Your task to perform on an android device: Go to Reddit.com Image 0: 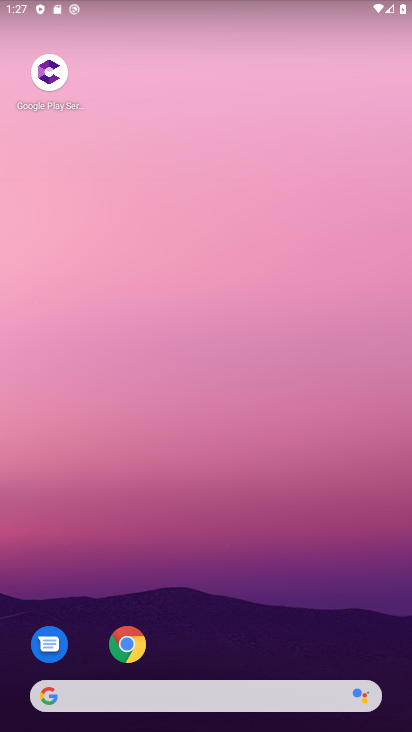
Step 0: click (132, 643)
Your task to perform on an android device: Go to Reddit.com Image 1: 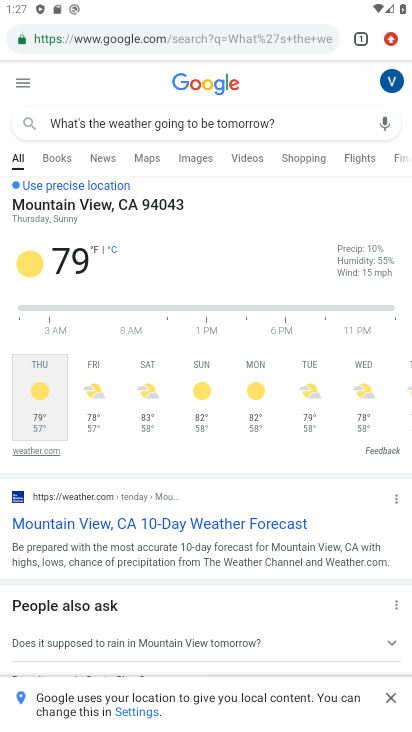
Step 1: click (359, 44)
Your task to perform on an android device: Go to Reddit.com Image 2: 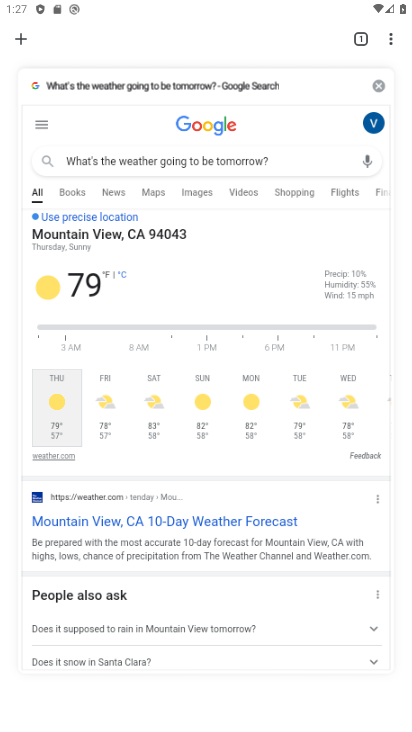
Step 2: click (22, 46)
Your task to perform on an android device: Go to Reddit.com Image 3: 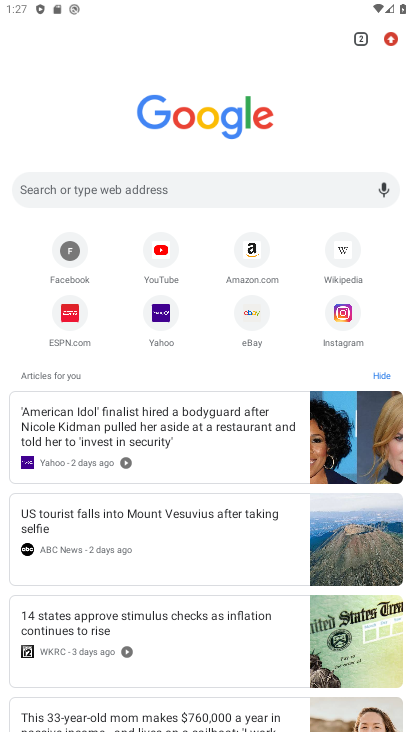
Step 3: click (240, 181)
Your task to perform on an android device: Go to Reddit.com Image 4: 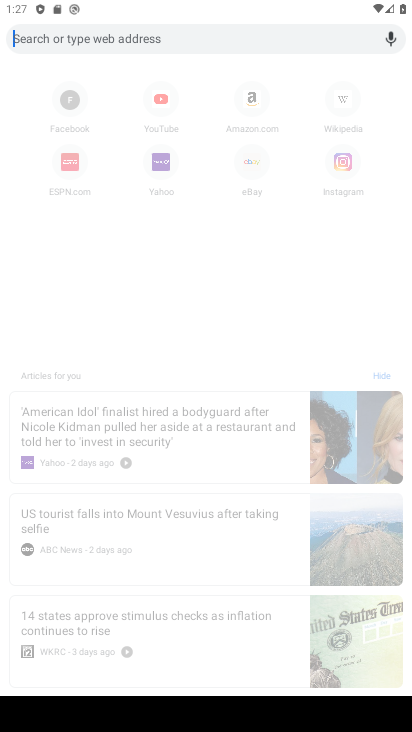
Step 4: type "reddit.com"
Your task to perform on an android device: Go to Reddit.com Image 5: 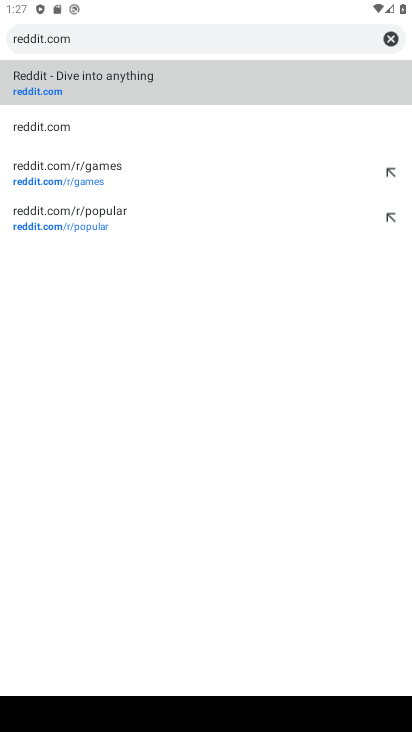
Step 5: click (41, 97)
Your task to perform on an android device: Go to Reddit.com Image 6: 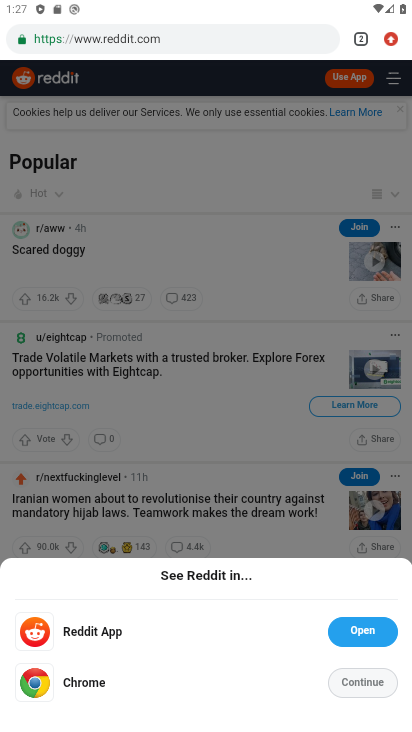
Step 6: task complete